Your task to perform on an android device: Search for vegetarian restaurants on Maps Image 0: 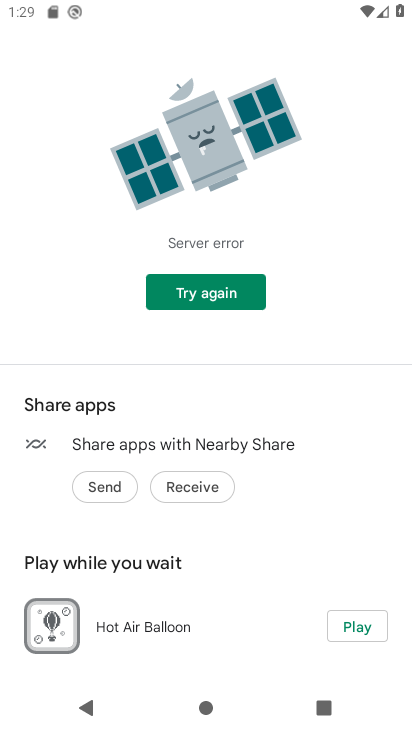
Step 0: press home button
Your task to perform on an android device: Search for vegetarian restaurants on Maps Image 1: 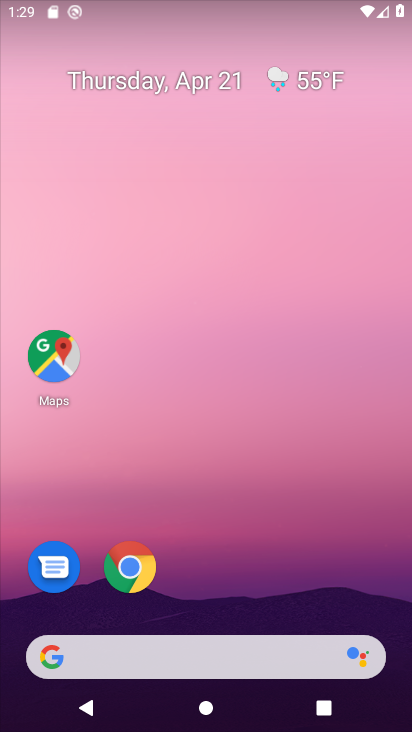
Step 1: click (50, 339)
Your task to perform on an android device: Search for vegetarian restaurants on Maps Image 2: 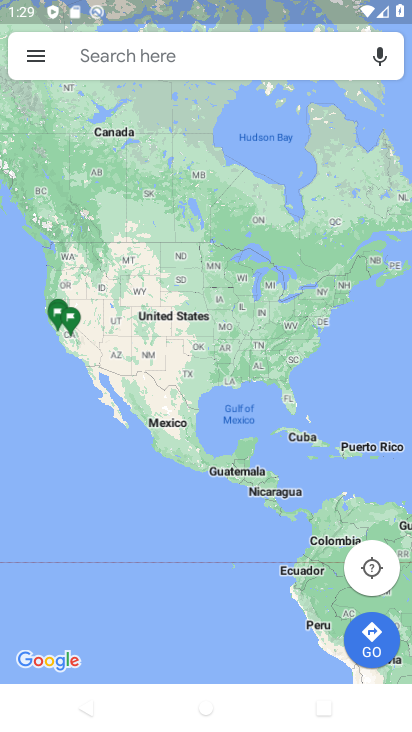
Step 2: click (137, 51)
Your task to perform on an android device: Search for vegetarian restaurants on Maps Image 3: 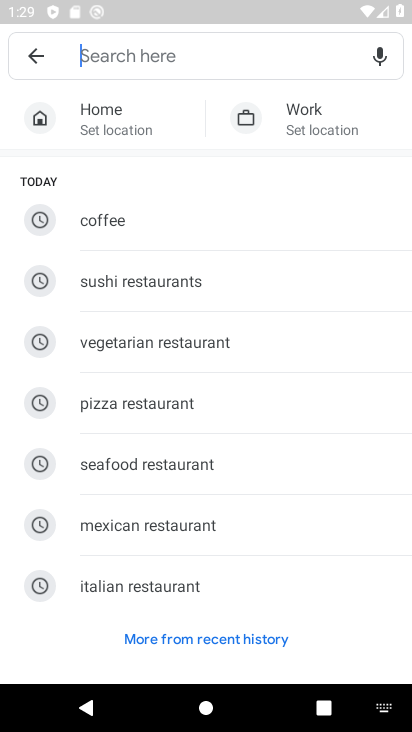
Step 3: click (137, 342)
Your task to perform on an android device: Search for vegetarian restaurants on Maps Image 4: 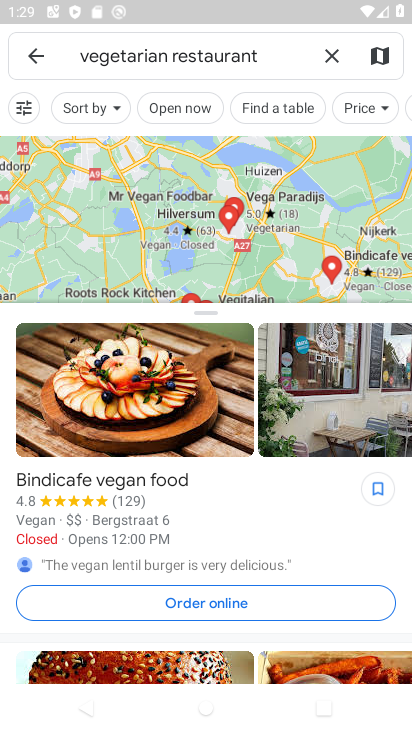
Step 4: task complete